Your task to perform on an android device: Go to display settings Image 0: 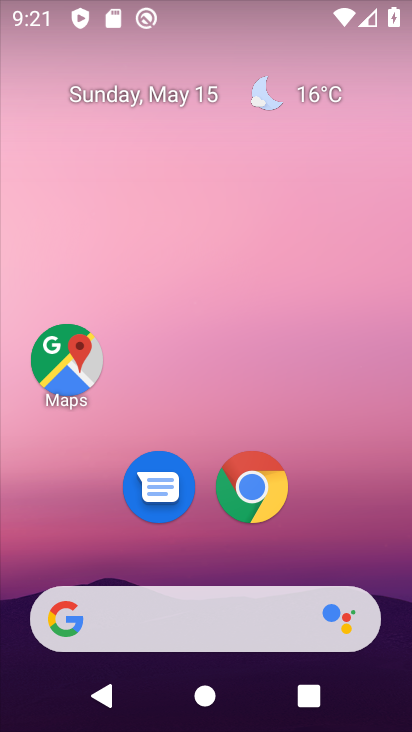
Step 0: drag from (393, 519) to (328, 122)
Your task to perform on an android device: Go to display settings Image 1: 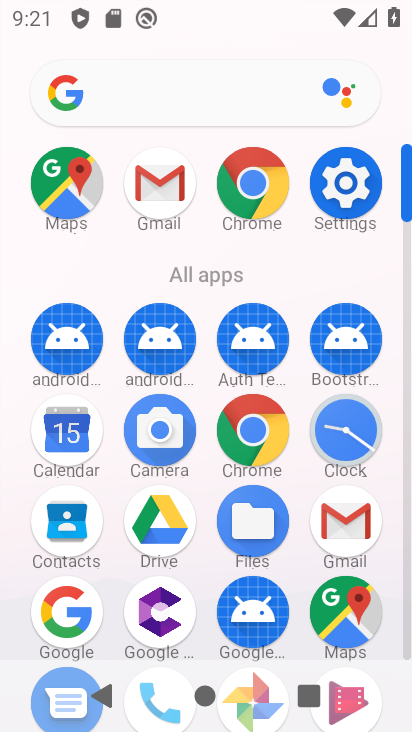
Step 1: click (338, 207)
Your task to perform on an android device: Go to display settings Image 2: 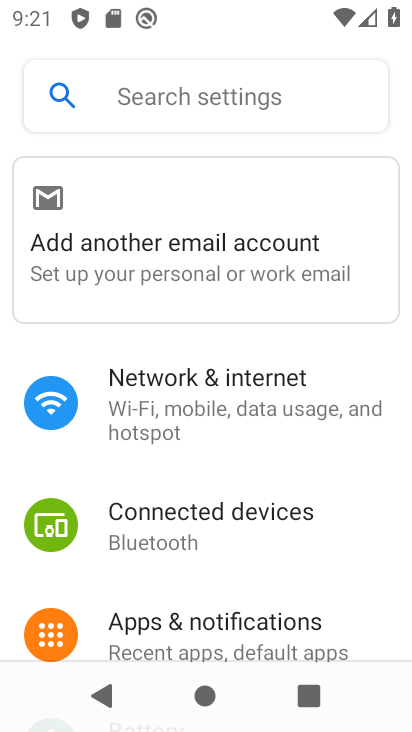
Step 2: drag from (328, 548) to (329, 229)
Your task to perform on an android device: Go to display settings Image 3: 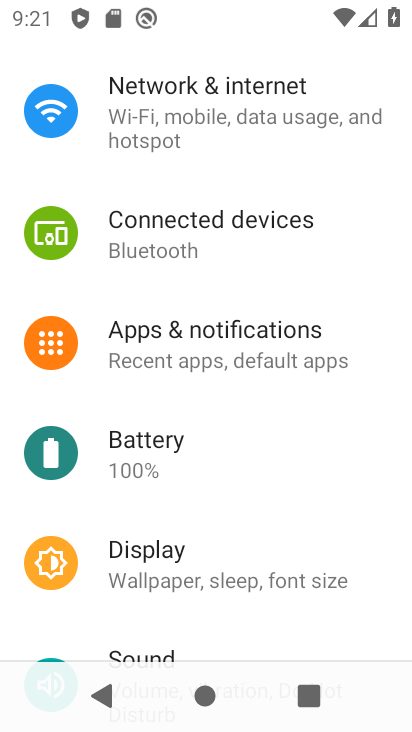
Step 3: drag from (307, 499) to (333, 227)
Your task to perform on an android device: Go to display settings Image 4: 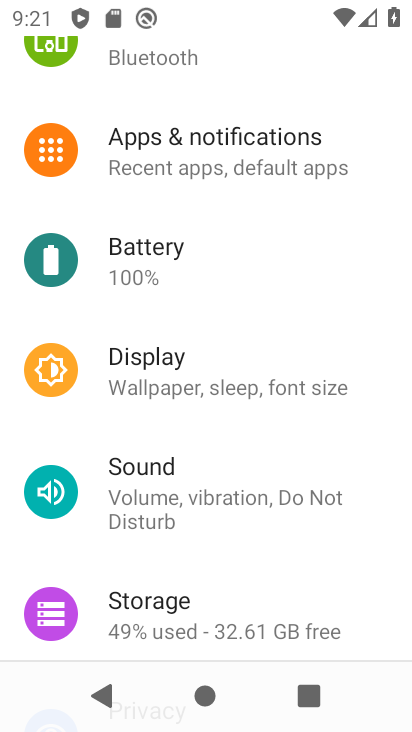
Step 4: drag from (333, 556) to (343, 241)
Your task to perform on an android device: Go to display settings Image 5: 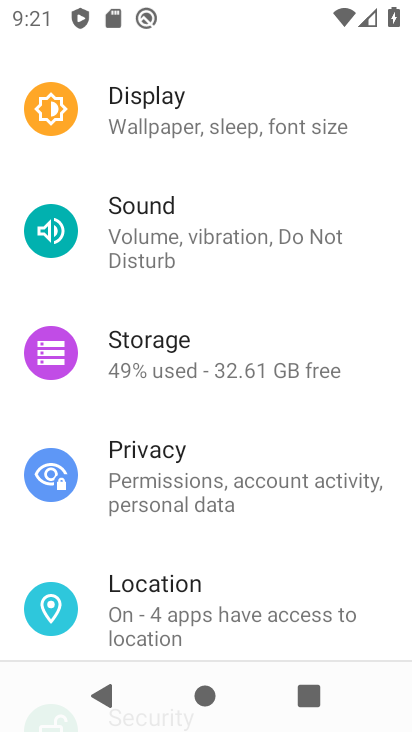
Step 5: drag from (307, 519) to (320, 287)
Your task to perform on an android device: Go to display settings Image 6: 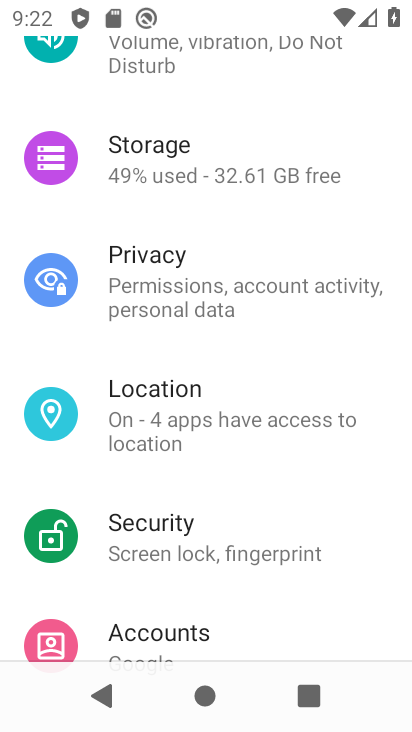
Step 6: drag from (322, 574) to (344, 284)
Your task to perform on an android device: Go to display settings Image 7: 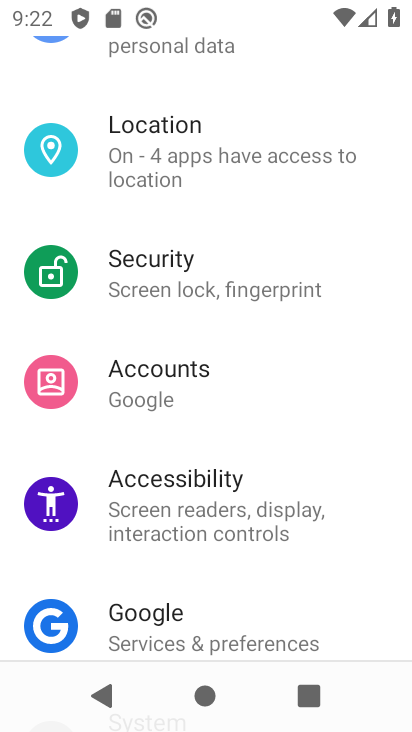
Step 7: drag from (315, 567) to (316, 253)
Your task to perform on an android device: Go to display settings Image 8: 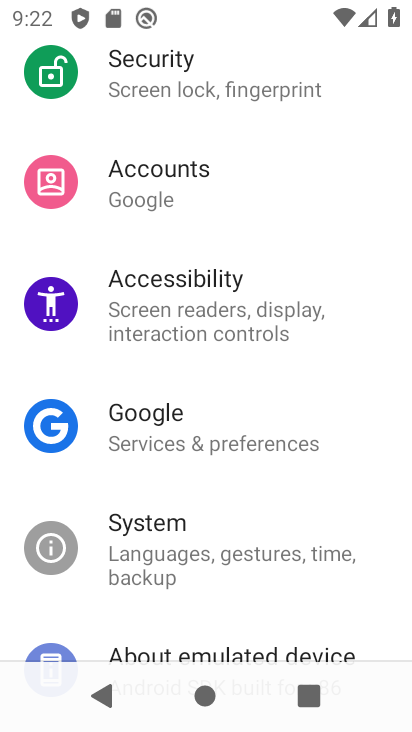
Step 8: drag from (311, 487) to (329, 225)
Your task to perform on an android device: Go to display settings Image 9: 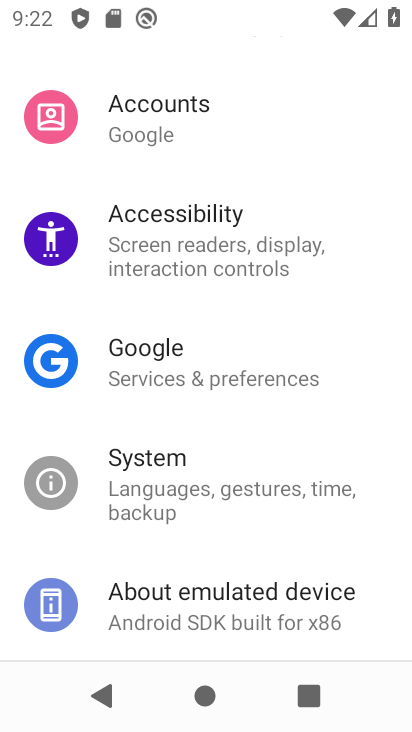
Step 9: drag from (329, 536) to (344, 241)
Your task to perform on an android device: Go to display settings Image 10: 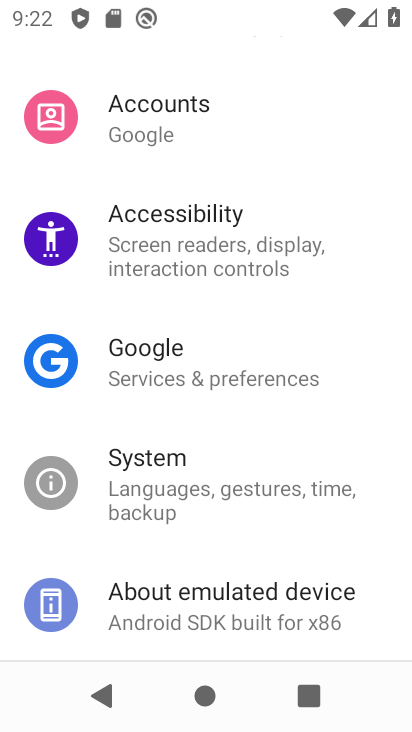
Step 10: drag from (322, 154) to (296, 572)
Your task to perform on an android device: Go to display settings Image 11: 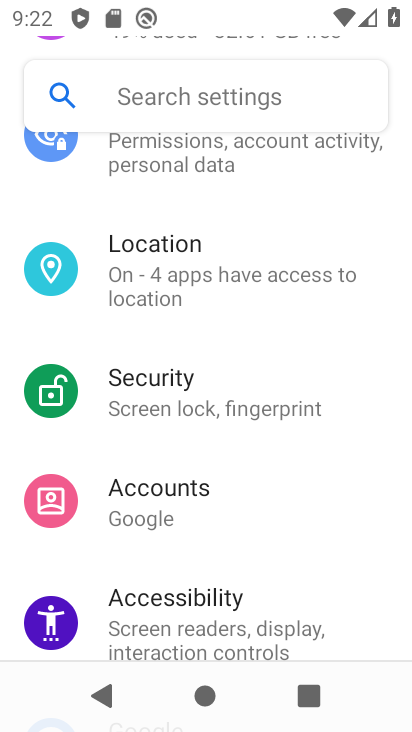
Step 11: drag from (294, 181) to (306, 554)
Your task to perform on an android device: Go to display settings Image 12: 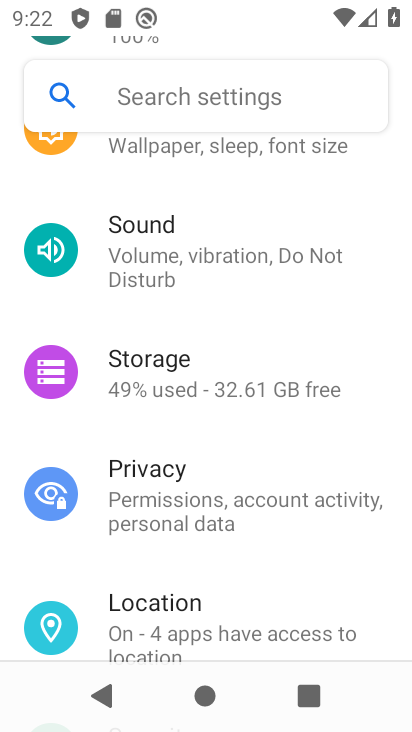
Step 12: drag from (300, 214) to (299, 603)
Your task to perform on an android device: Go to display settings Image 13: 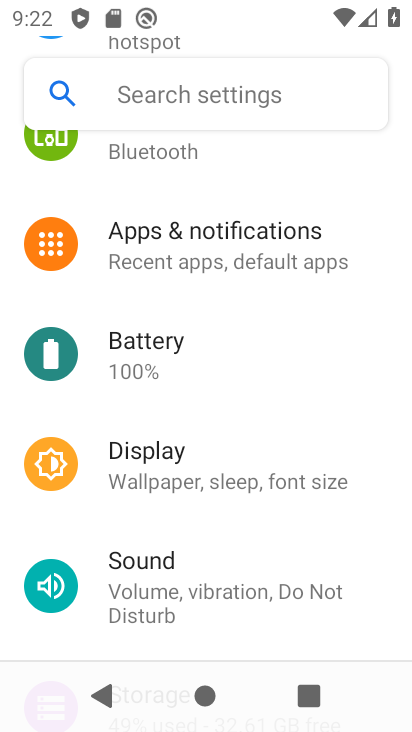
Step 13: click (288, 474)
Your task to perform on an android device: Go to display settings Image 14: 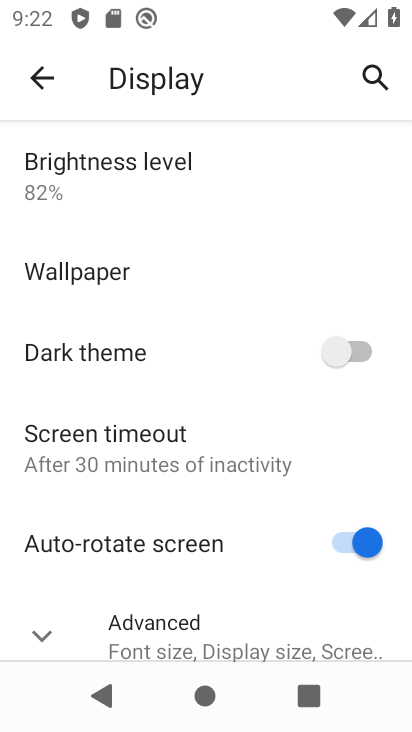
Step 14: task complete